Your task to perform on an android device: Open network settings Image 0: 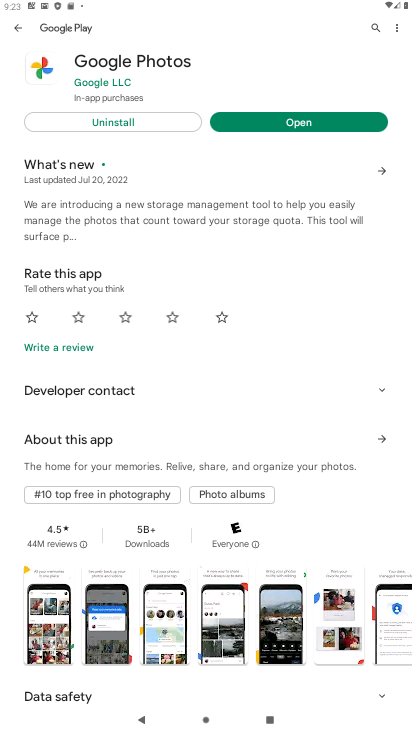
Step 0: press back button
Your task to perform on an android device: Open network settings Image 1: 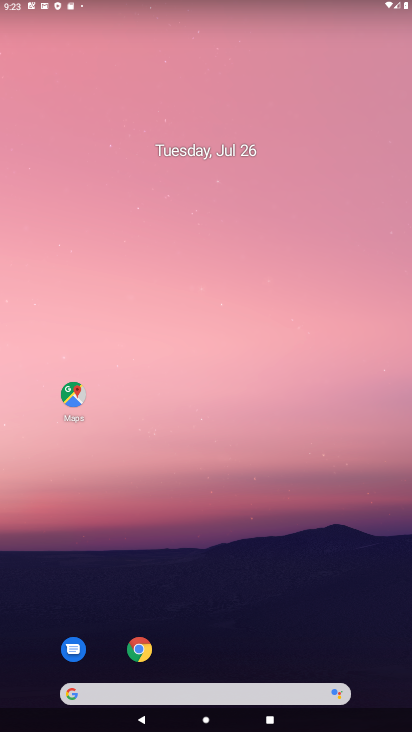
Step 1: drag from (158, 664) to (244, 53)
Your task to perform on an android device: Open network settings Image 2: 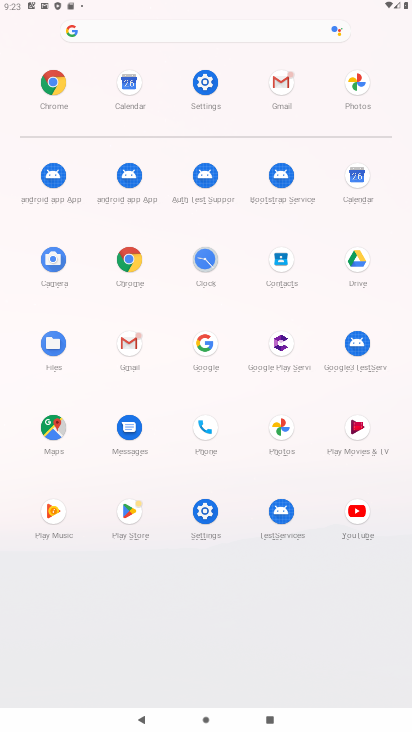
Step 2: click (206, 512)
Your task to perform on an android device: Open network settings Image 3: 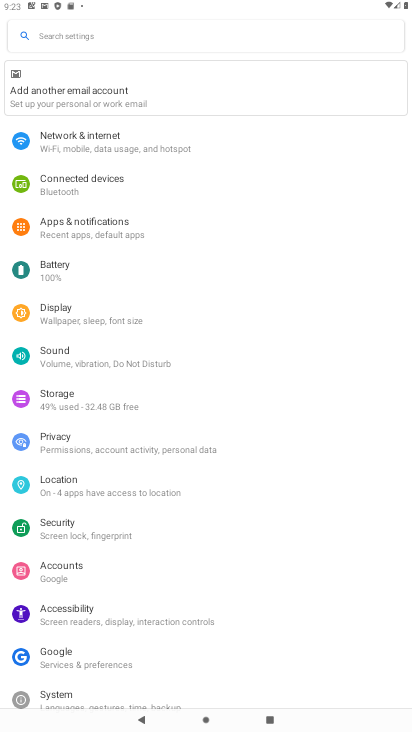
Step 3: click (110, 141)
Your task to perform on an android device: Open network settings Image 4: 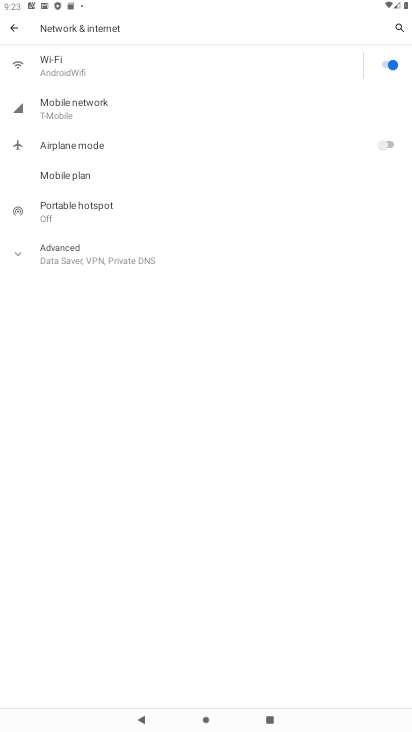
Step 4: task complete